Your task to perform on an android device: Go to ESPN.com Image 0: 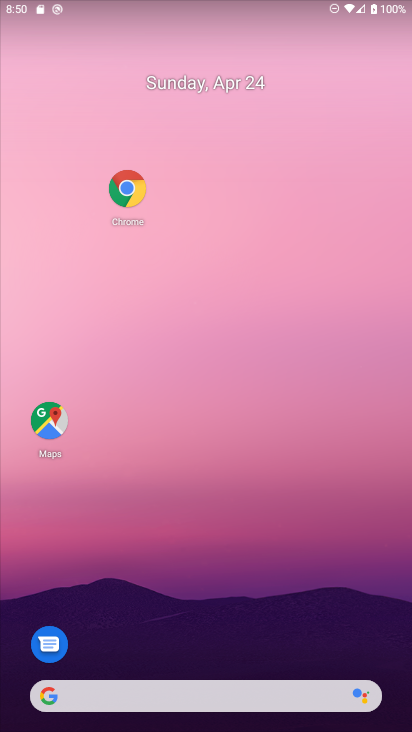
Step 0: drag from (172, 632) to (265, 218)
Your task to perform on an android device: Go to ESPN.com Image 1: 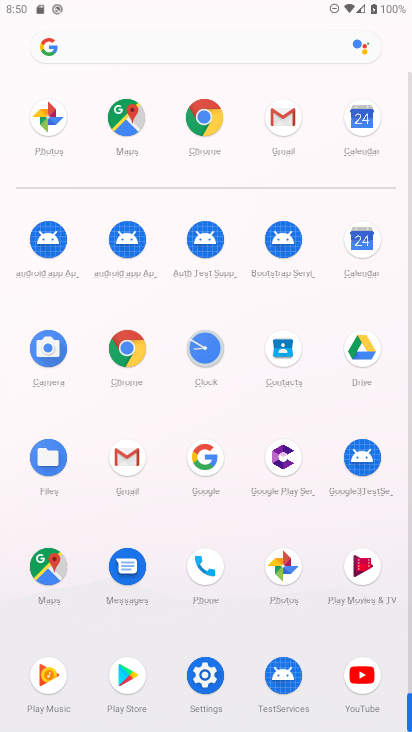
Step 1: click (207, 444)
Your task to perform on an android device: Go to ESPN.com Image 2: 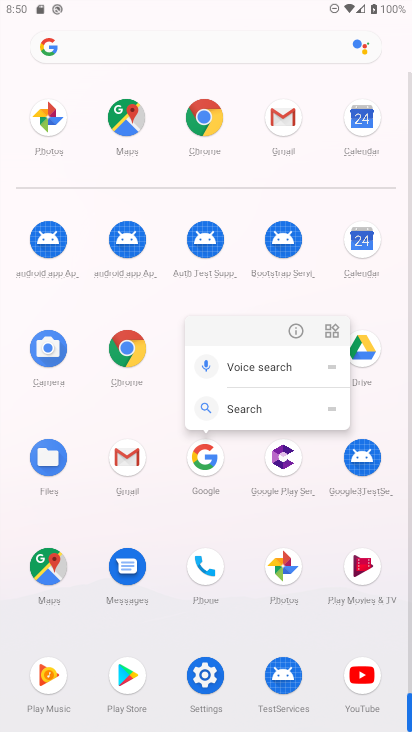
Step 2: click (287, 337)
Your task to perform on an android device: Go to ESPN.com Image 3: 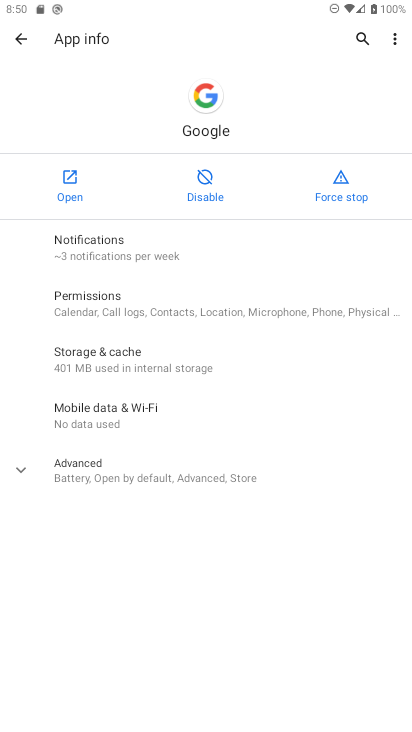
Step 3: click (64, 188)
Your task to perform on an android device: Go to ESPN.com Image 4: 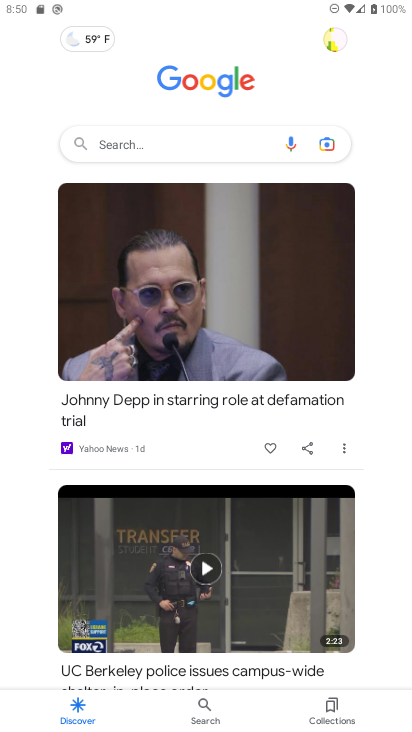
Step 4: drag from (245, 518) to (263, 587)
Your task to perform on an android device: Go to ESPN.com Image 5: 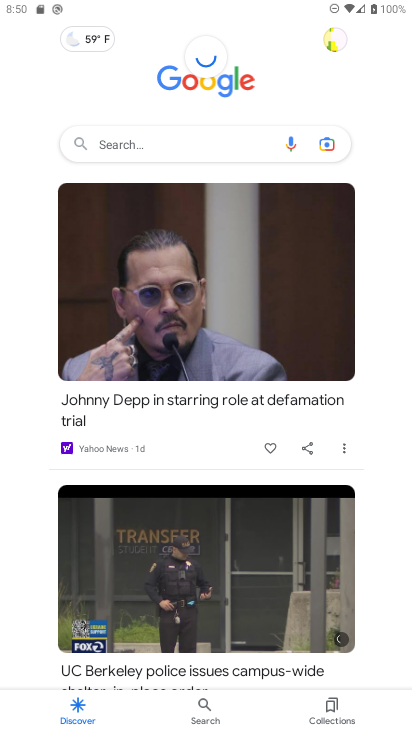
Step 5: click (124, 137)
Your task to perform on an android device: Go to ESPN.com Image 6: 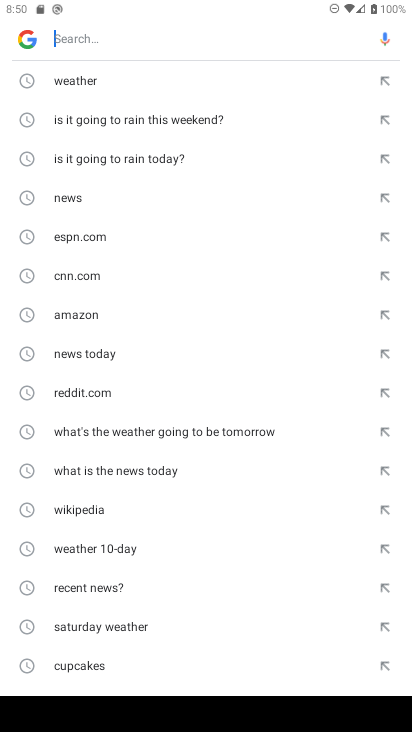
Step 6: click (120, 233)
Your task to perform on an android device: Go to ESPN.com Image 7: 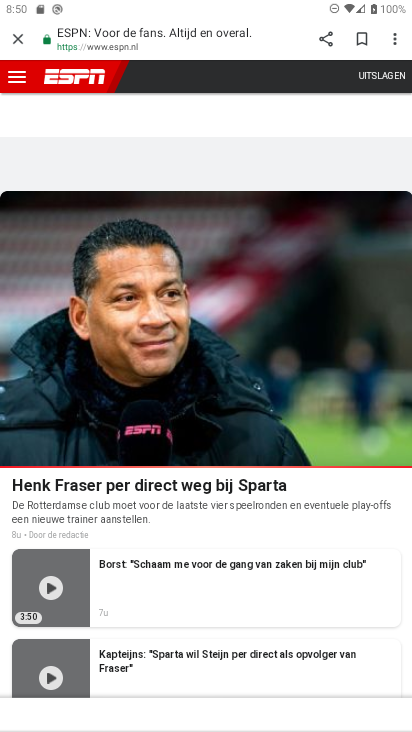
Step 7: task complete